Your task to perform on an android device: open app "Adobe Express: Graphic Design" (install if not already installed) and go to login screen Image 0: 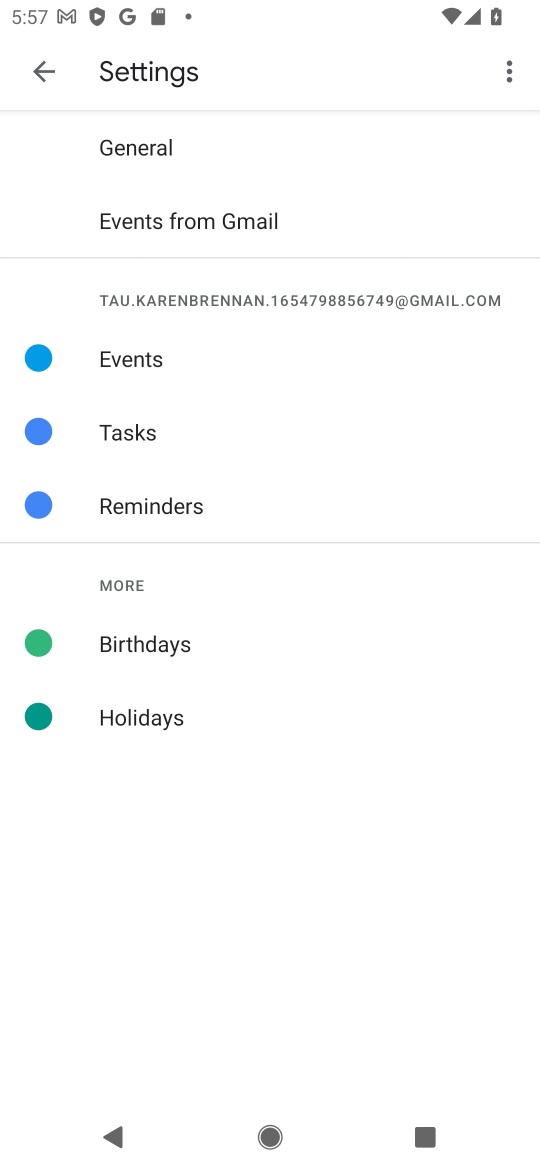
Step 0: press home button
Your task to perform on an android device: open app "Adobe Express: Graphic Design" (install if not already installed) and go to login screen Image 1: 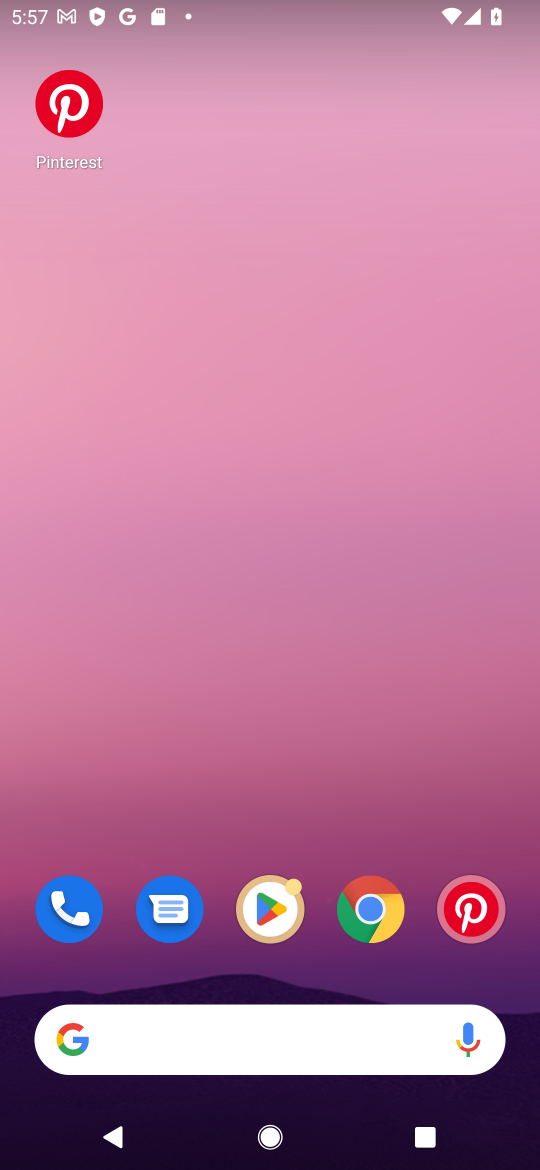
Step 1: click (366, 866)
Your task to perform on an android device: open app "Adobe Express: Graphic Design" (install if not already installed) and go to login screen Image 2: 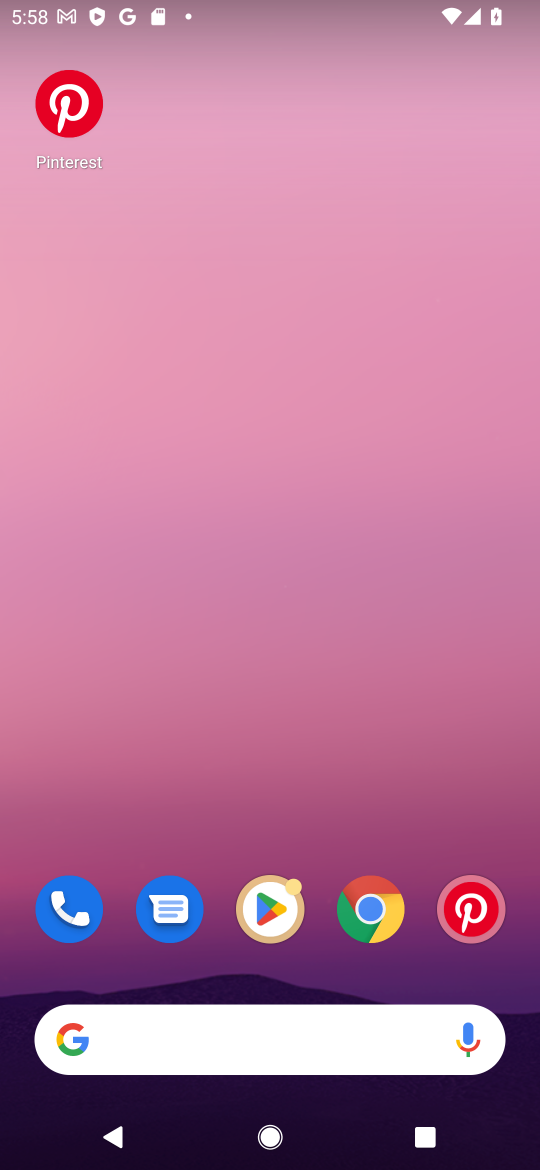
Step 2: click (279, 919)
Your task to perform on an android device: open app "Adobe Express: Graphic Design" (install if not already installed) and go to login screen Image 3: 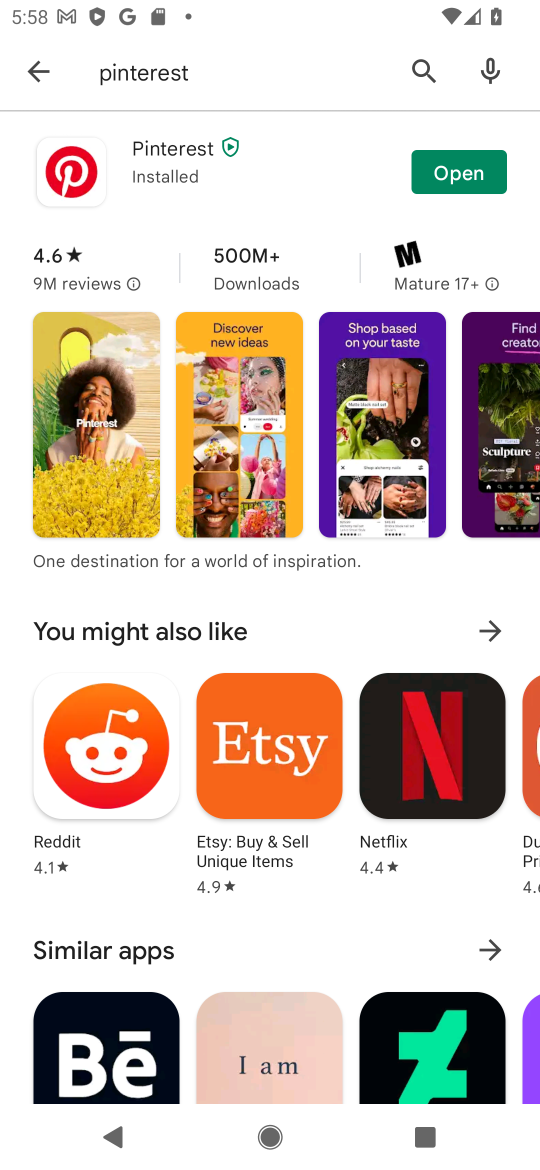
Step 3: click (421, 72)
Your task to perform on an android device: open app "Adobe Express: Graphic Design" (install if not already installed) and go to login screen Image 4: 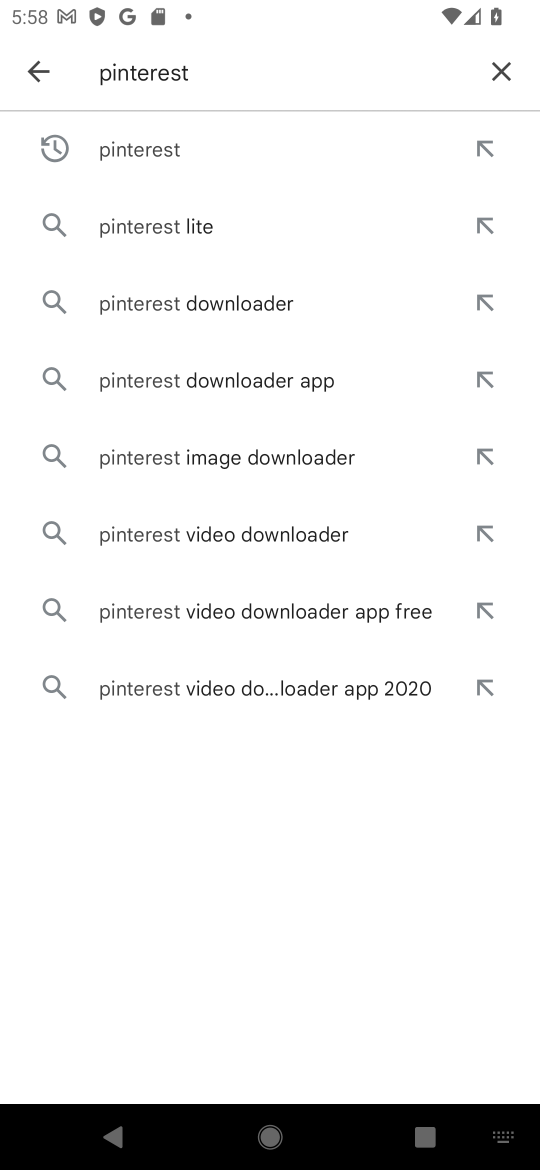
Step 4: click (508, 78)
Your task to perform on an android device: open app "Adobe Express: Graphic Design" (install if not already installed) and go to login screen Image 5: 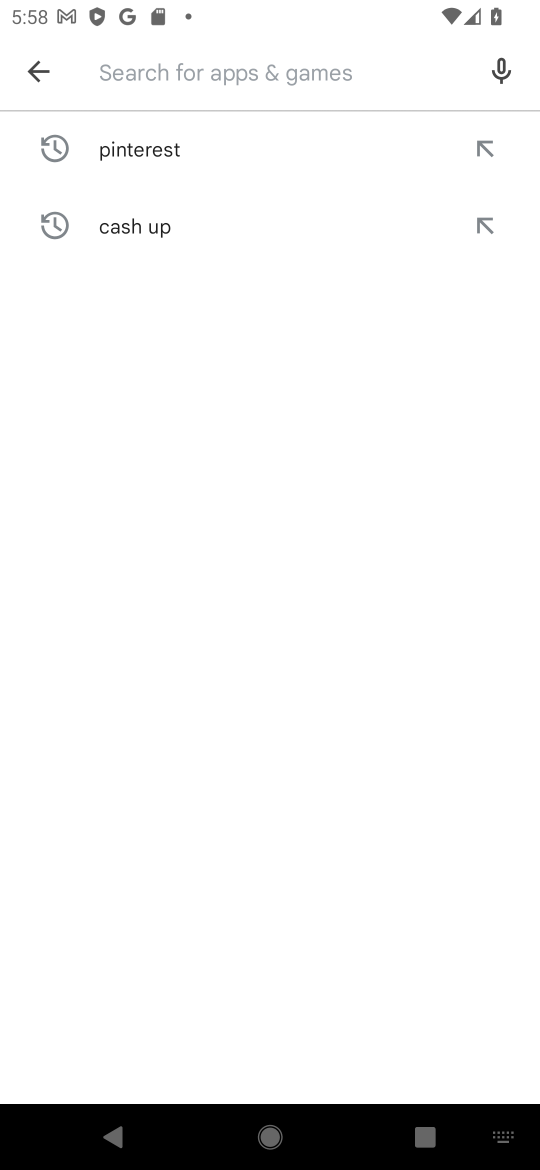
Step 5: type "adobe express"
Your task to perform on an android device: open app "Adobe Express: Graphic Design" (install if not already installed) and go to login screen Image 6: 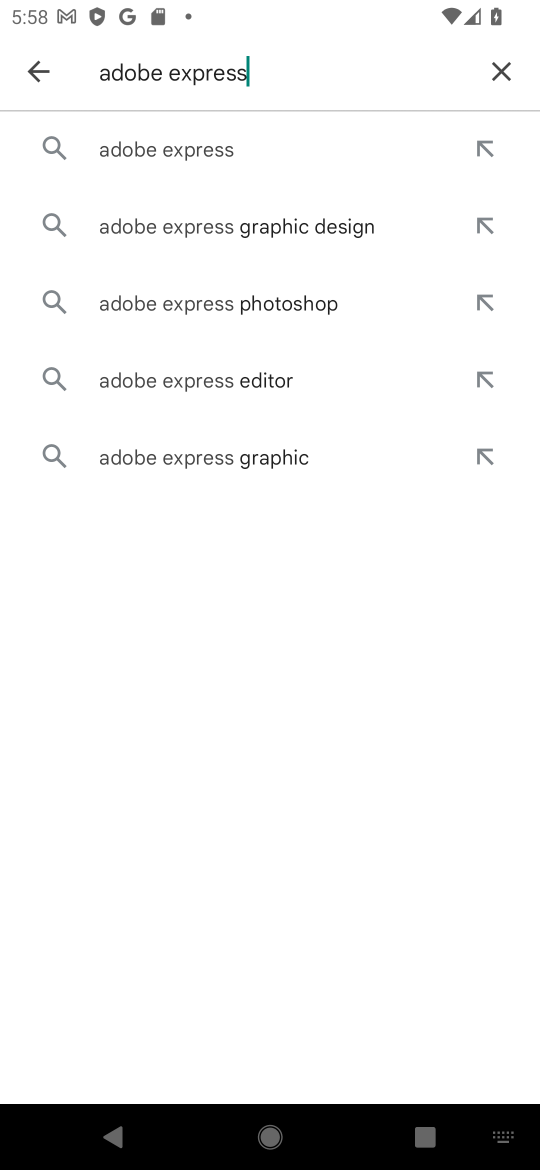
Step 6: click (274, 235)
Your task to perform on an android device: open app "Adobe Express: Graphic Design" (install if not already installed) and go to login screen Image 7: 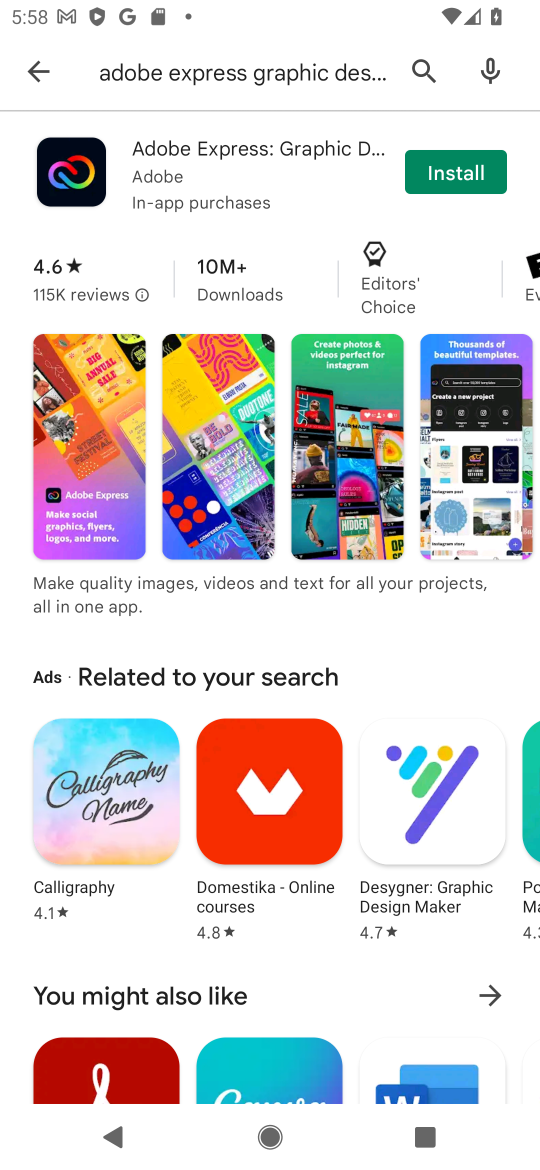
Step 7: click (477, 182)
Your task to perform on an android device: open app "Adobe Express: Graphic Design" (install if not already installed) and go to login screen Image 8: 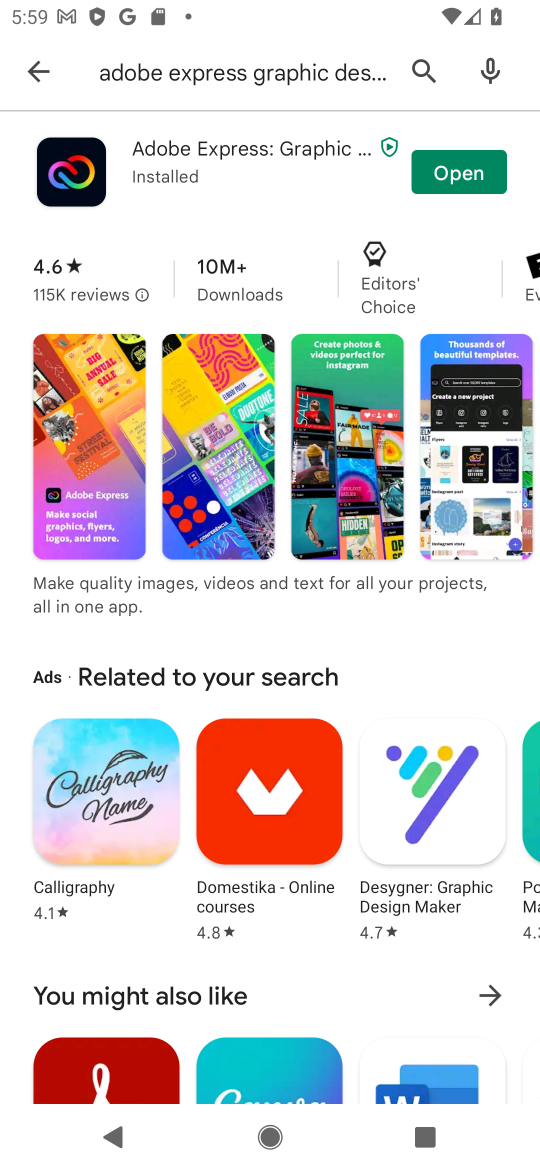
Step 8: click (474, 170)
Your task to perform on an android device: open app "Adobe Express: Graphic Design" (install if not already installed) and go to login screen Image 9: 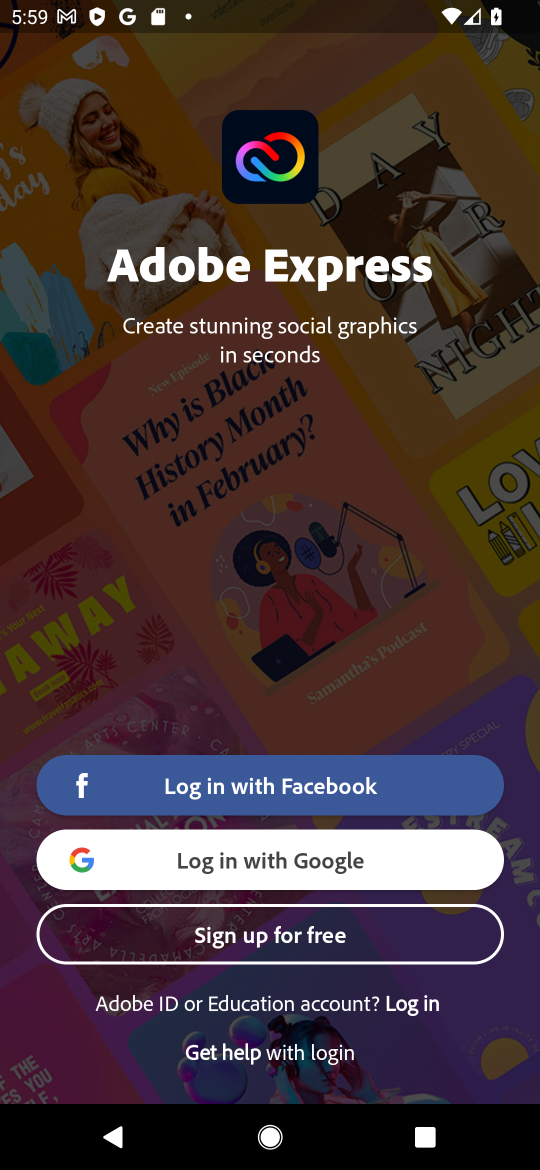
Step 9: task complete